Your task to perform on an android device: Open Google Image 0: 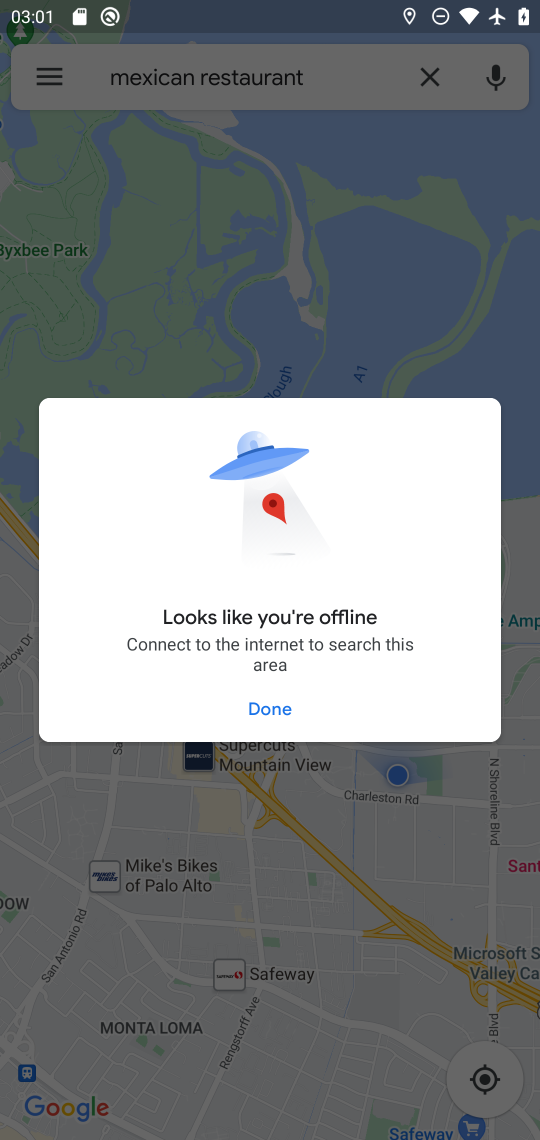
Step 0: press home button
Your task to perform on an android device: Open Google Image 1: 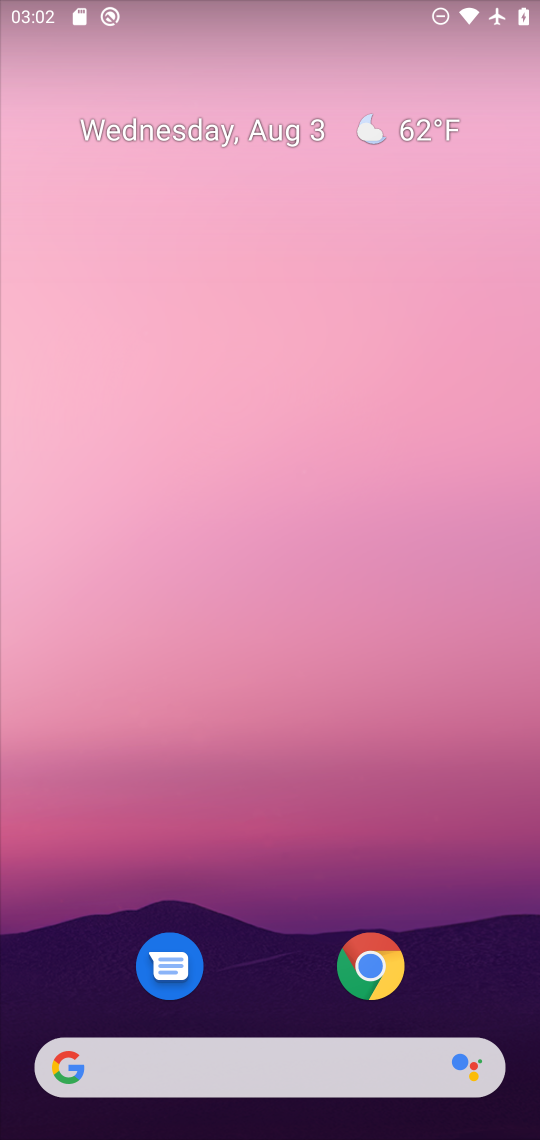
Step 1: drag from (279, 940) to (241, 237)
Your task to perform on an android device: Open Google Image 2: 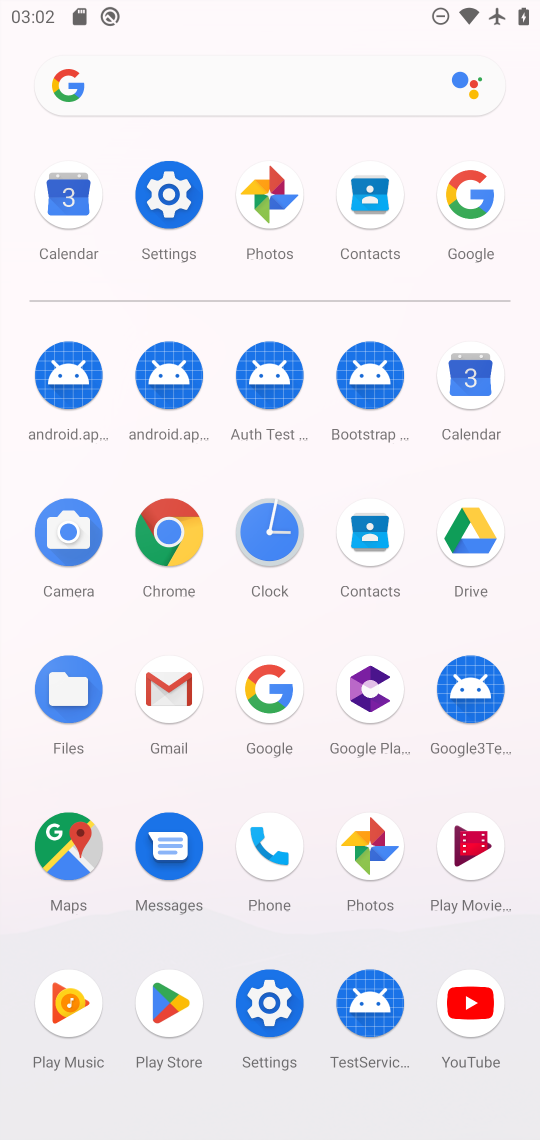
Step 2: click (468, 868)
Your task to perform on an android device: Open Google Image 3: 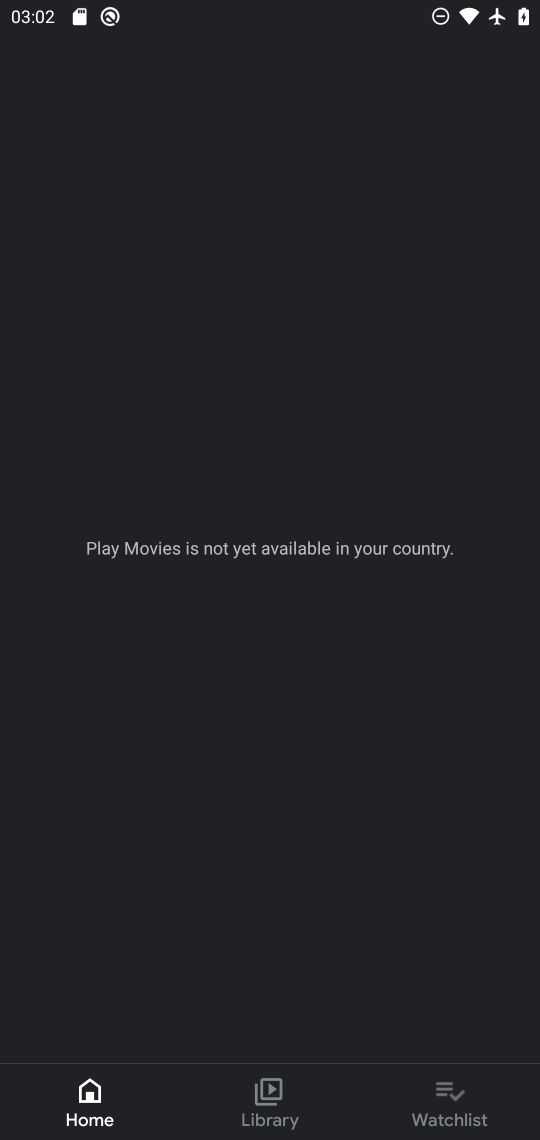
Step 3: click (436, 1097)
Your task to perform on an android device: Open Google Image 4: 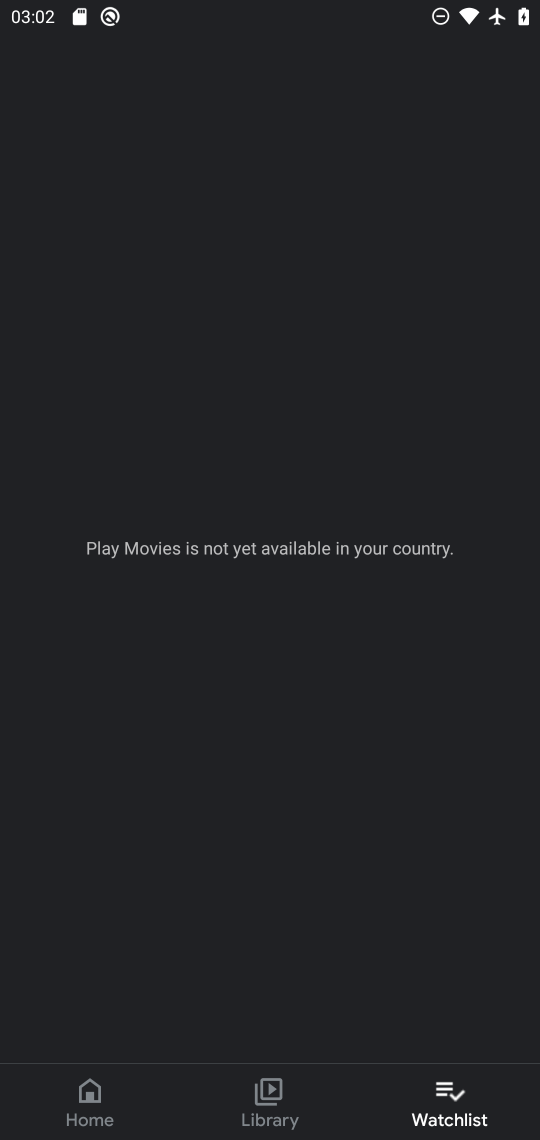
Step 4: task complete